Your task to perform on an android device: turn off priority inbox in the gmail app Image 0: 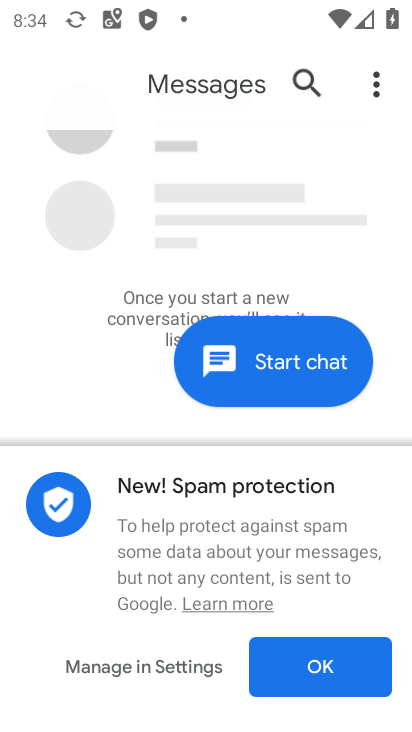
Step 0: press home button
Your task to perform on an android device: turn off priority inbox in the gmail app Image 1: 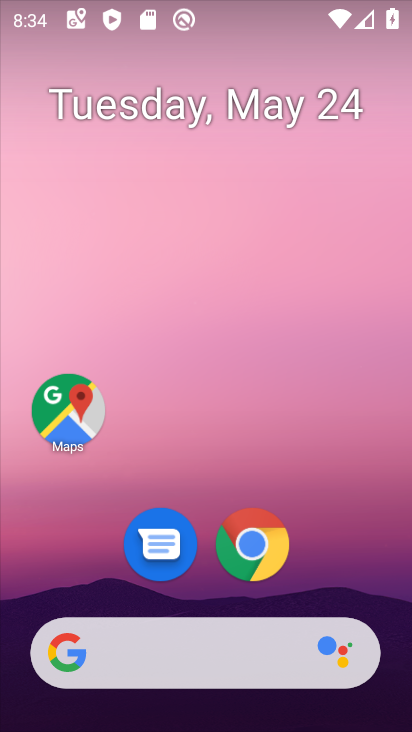
Step 1: drag from (374, 593) to (271, 183)
Your task to perform on an android device: turn off priority inbox in the gmail app Image 2: 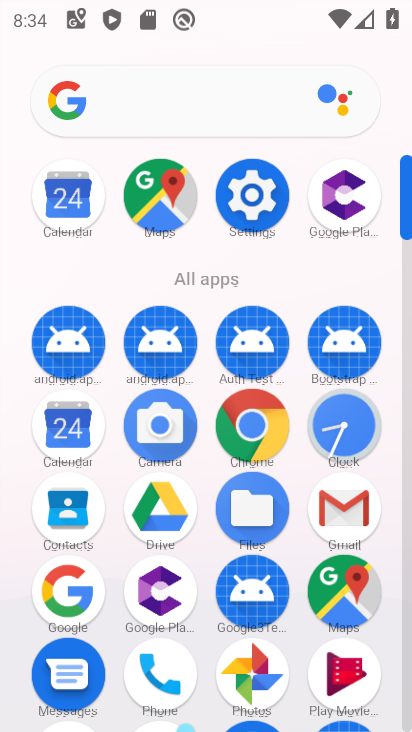
Step 2: click (351, 506)
Your task to perform on an android device: turn off priority inbox in the gmail app Image 3: 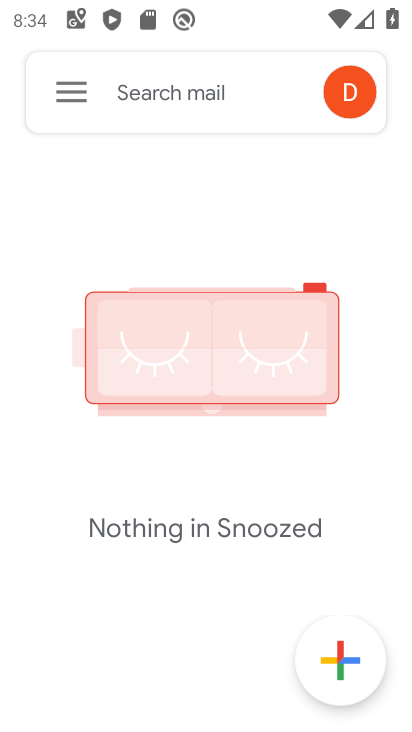
Step 3: click (78, 85)
Your task to perform on an android device: turn off priority inbox in the gmail app Image 4: 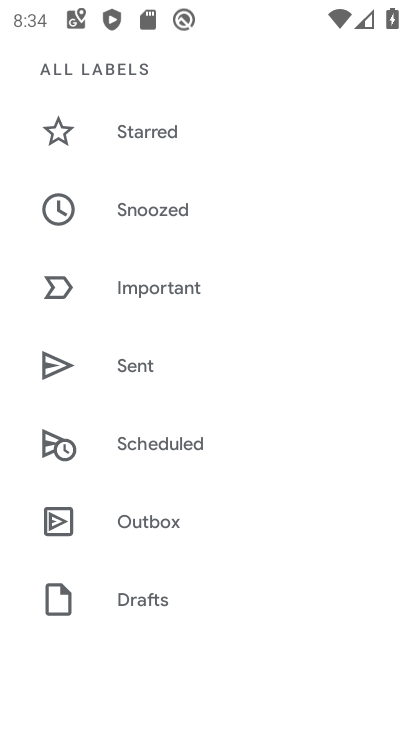
Step 4: drag from (165, 584) to (153, 77)
Your task to perform on an android device: turn off priority inbox in the gmail app Image 5: 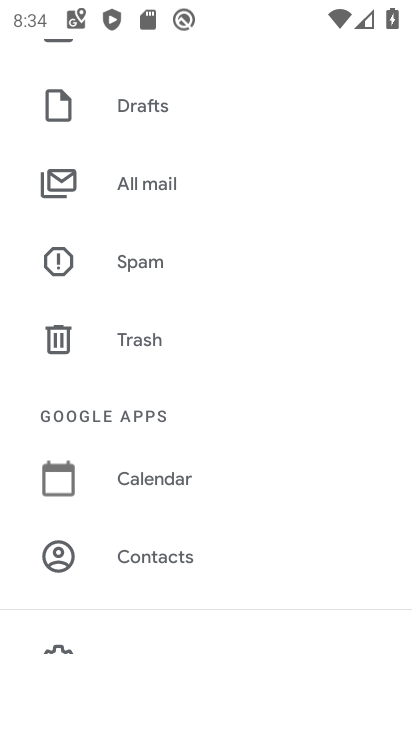
Step 5: drag from (162, 621) to (146, 209)
Your task to perform on an android device: turn off priority inbox in the gmail app Image 6: 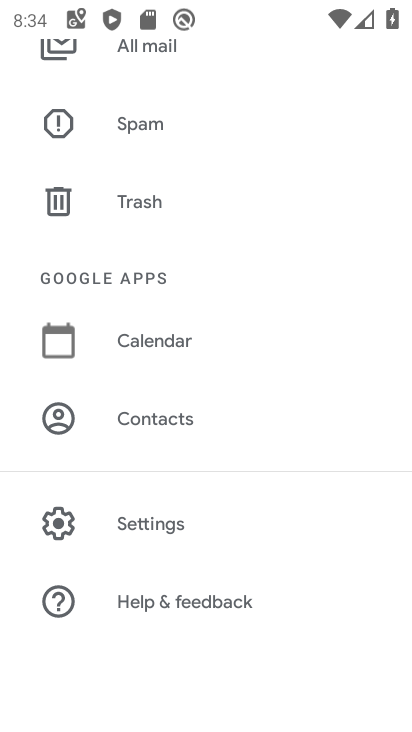
Step 6: click (158, 537)
Your task to perform on an android device: turn off priority inbox in the gmail app Image 7: 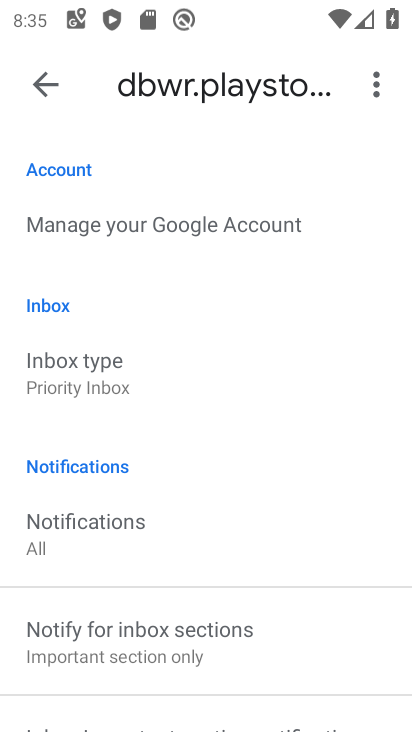
Step 7: click (177, 362)
Your task to perform on an android device: turn off priority inbox in the gmail app Image 8: 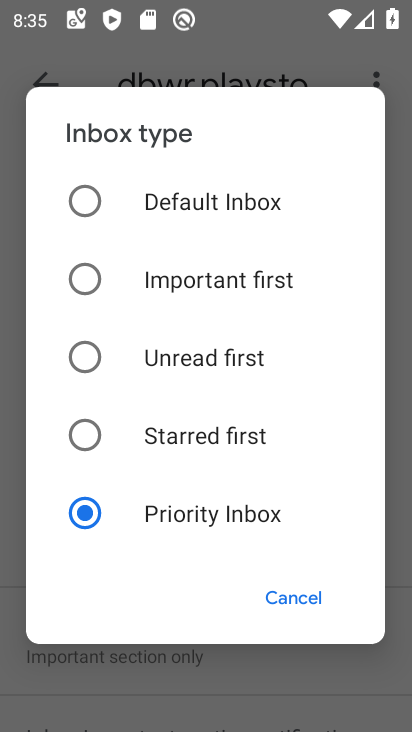
Step 8: click (193, 297)
Your task to perform on an android device: turn off priority inbox in the gmail app Image 9: 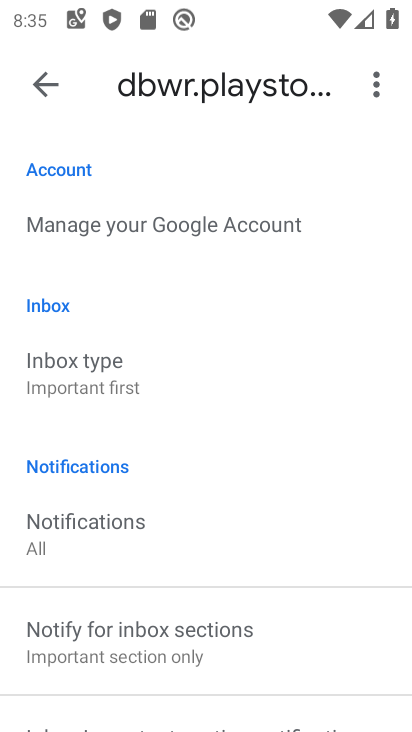
Step 9: task complete